Your task to perform on an android device: Open my contact list Image 0: 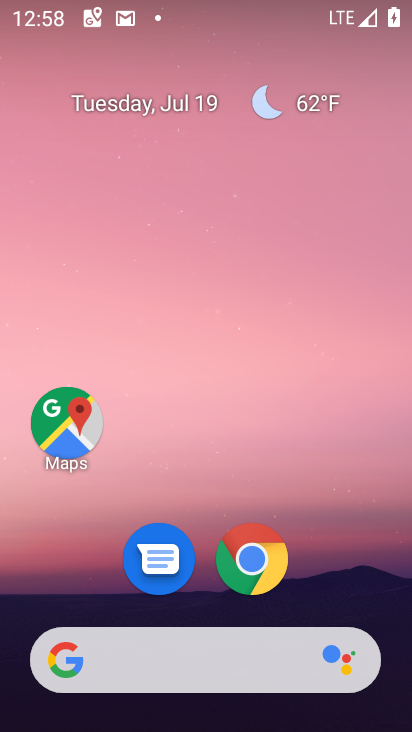
Step 0: drag from (283, 516) to (352, 146)
Your task to perform on an android device: Open my contact list Image 1: 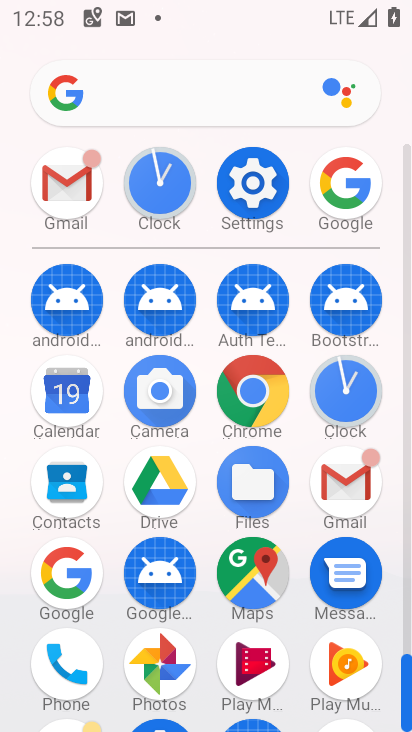
Step 1: click (72, 495)
Your task to perform on an android device: Open my contact list Image 2: 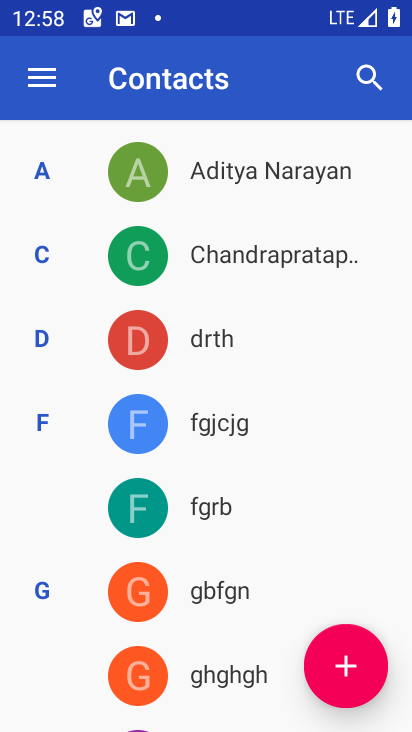
Step 2: task complete